Your task to perform on an android device: change the clock display to digital Image 0: 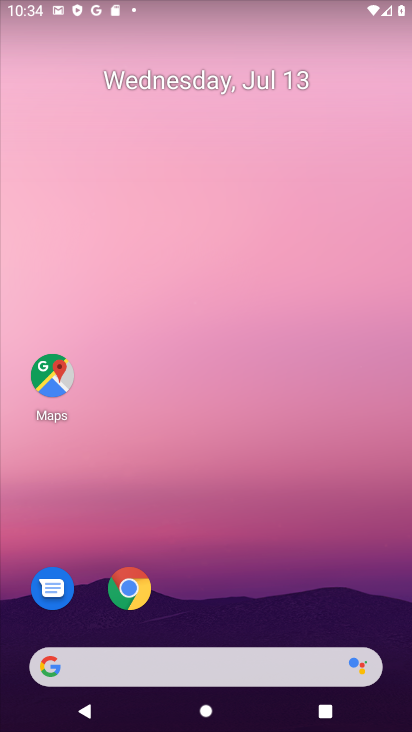
Step 0: drag from (173, 487) to (171, 93)
Your task to perform on an android device: change the clock display to digital Image 1: 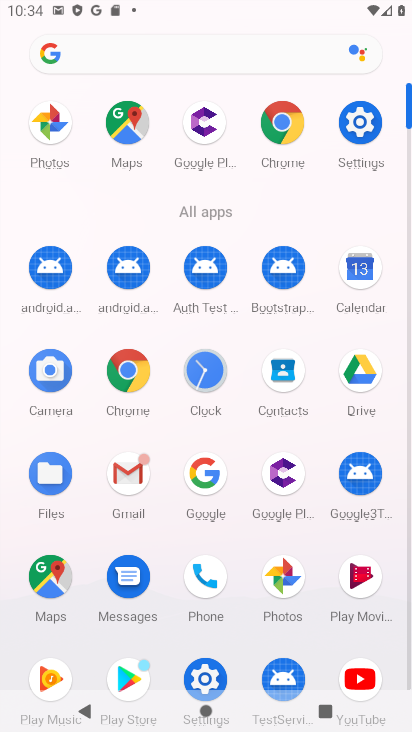
Step 1: click (203, 374)
Your task to perform on an android device: change the clock display to digital Image 2: 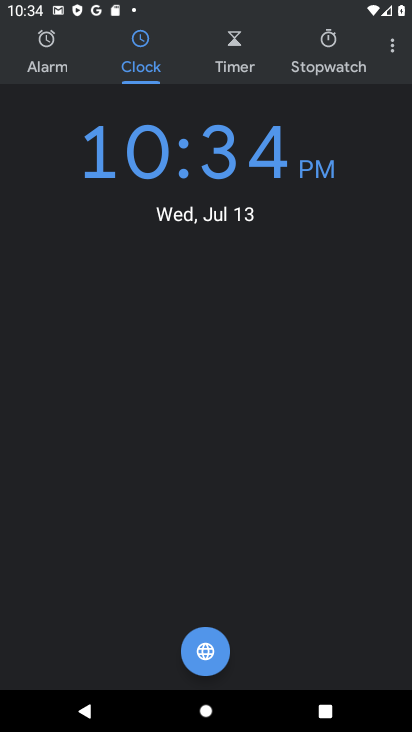
Step 2: click (395, 33)
Your task to perform on an android device: change the clock display to digital Image 3: 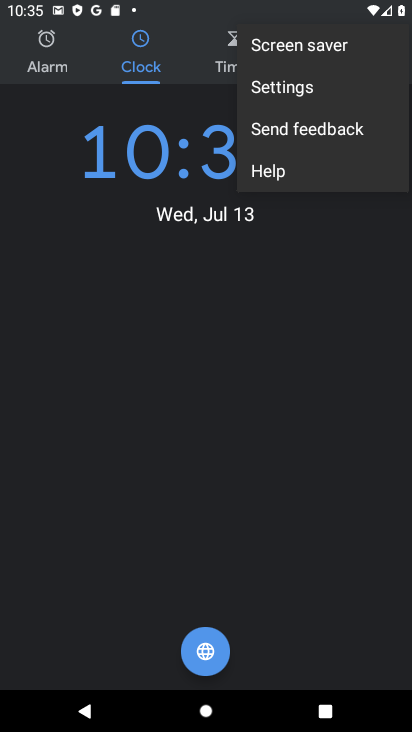
Step 3: click (268, 82)
Your task to perform on an android device: change the clock display to digital Image 4: 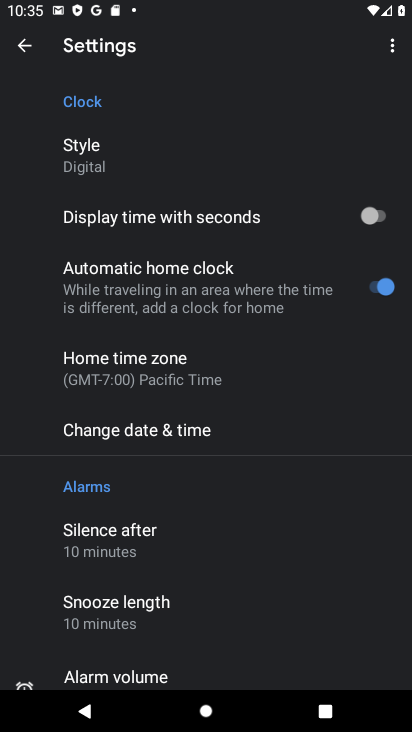
Step 4: click (113, 151)
Your task to perform on an android device: change the clock display to digital Image 5: 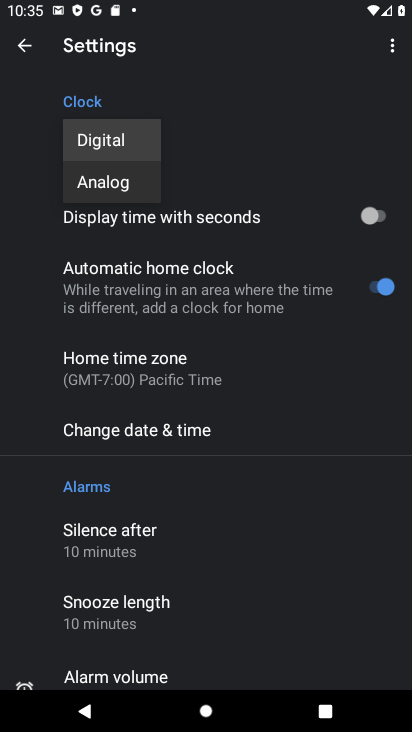
Step 5: task complete